Your task to perform on an android device: Open the calendar app, open the side menu, and click the "Day" option Image 0: 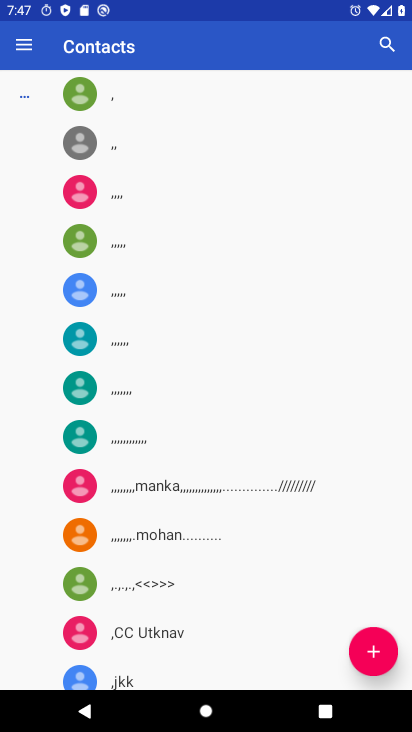
Step 0: press home button
Your task to perform on an android device: Open the calendar app, open the side menu, and click the "Day" option Image 1: 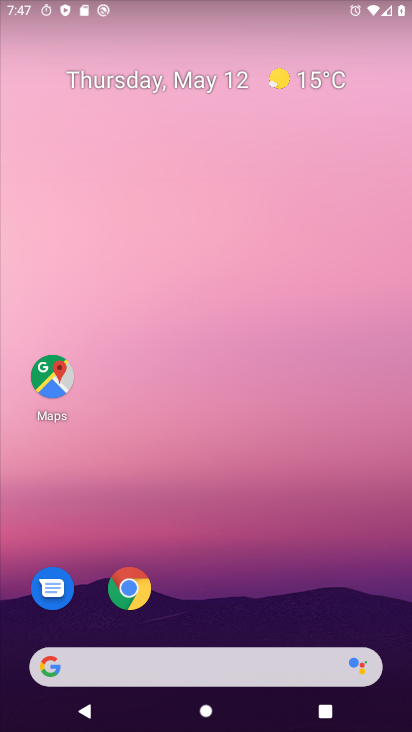
Step 1: drag from (179, 620) to (179, 249)
Your task to perform on an android device: Open the calendar app, open the side menu, and click the "Day" option Image 2: 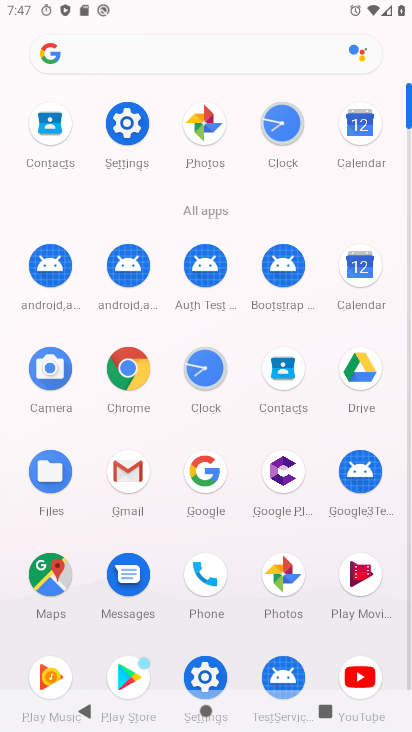
Step 2: click (369, 270)
Your task to perform on an android device: Open the calendar app, open the side menu, and click the "Day" option Image 3: 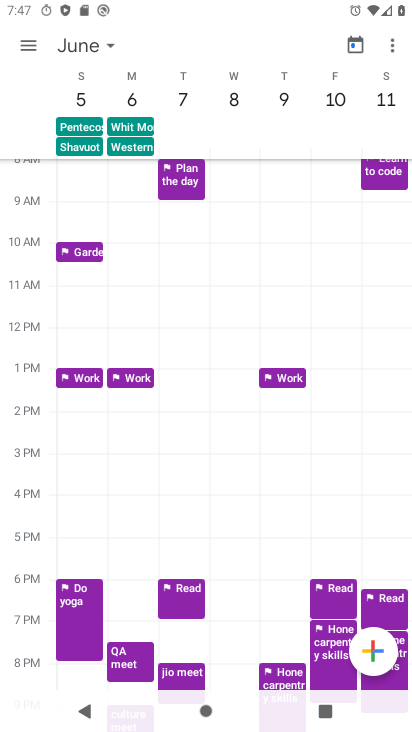
Step 3: click (33, 43)
Your task to perform on an android device: Open the calendar app, open the side menu, and click the "Day" option Image 4: 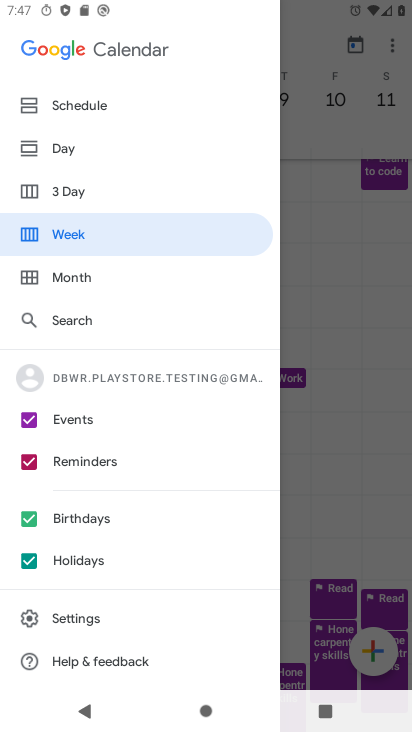
Step 4: click (42, 134)
Your task to perform on an android device: Open the calendar app, open the side menu, and click the "Day" option Image 5: 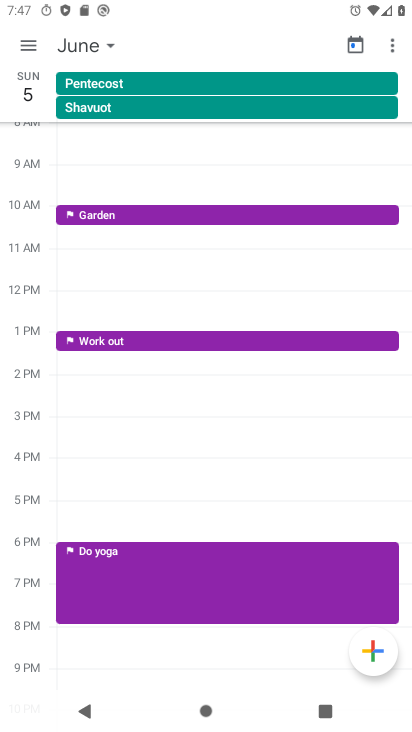
Step 5: task complete